Your task to perform on an android device: install app "Nova Launcher" Image 0: 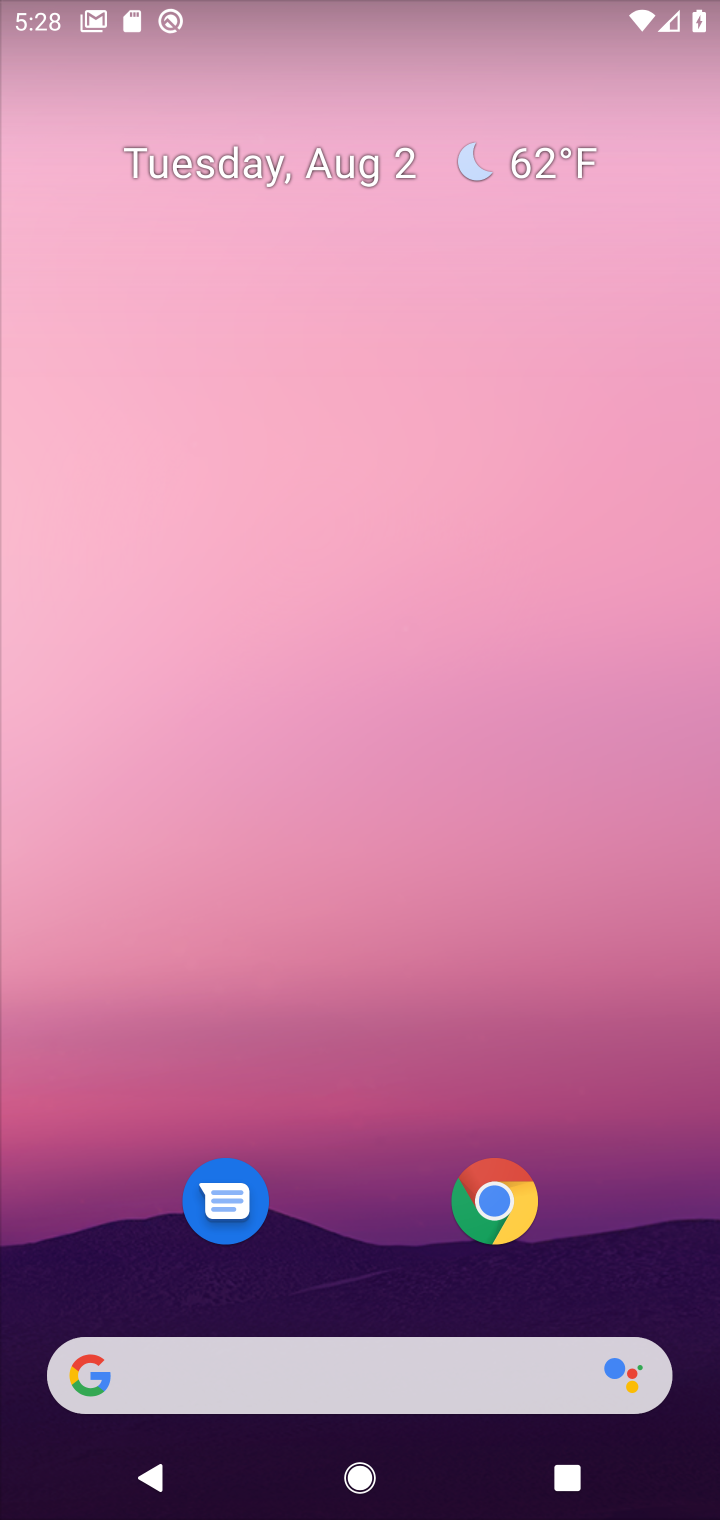
Step 0: drag from (429, 687) to (444, 364)
Your task to perform on an android device: install app "Nova Launcher" Image 1: 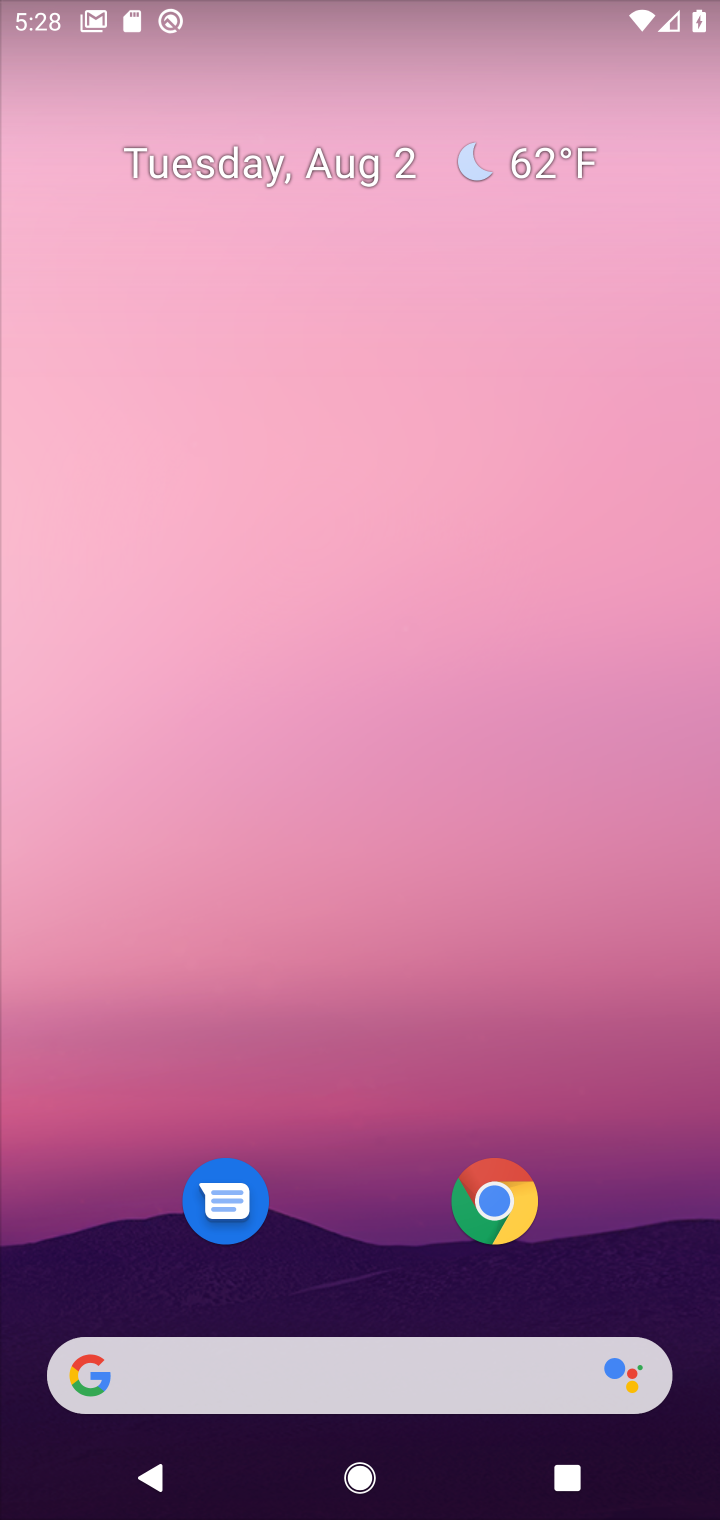
Step 1: drag from (421, 701) to (454, 320)
Your task to perform on an android device: install app "Nova Launcher" Image 2: 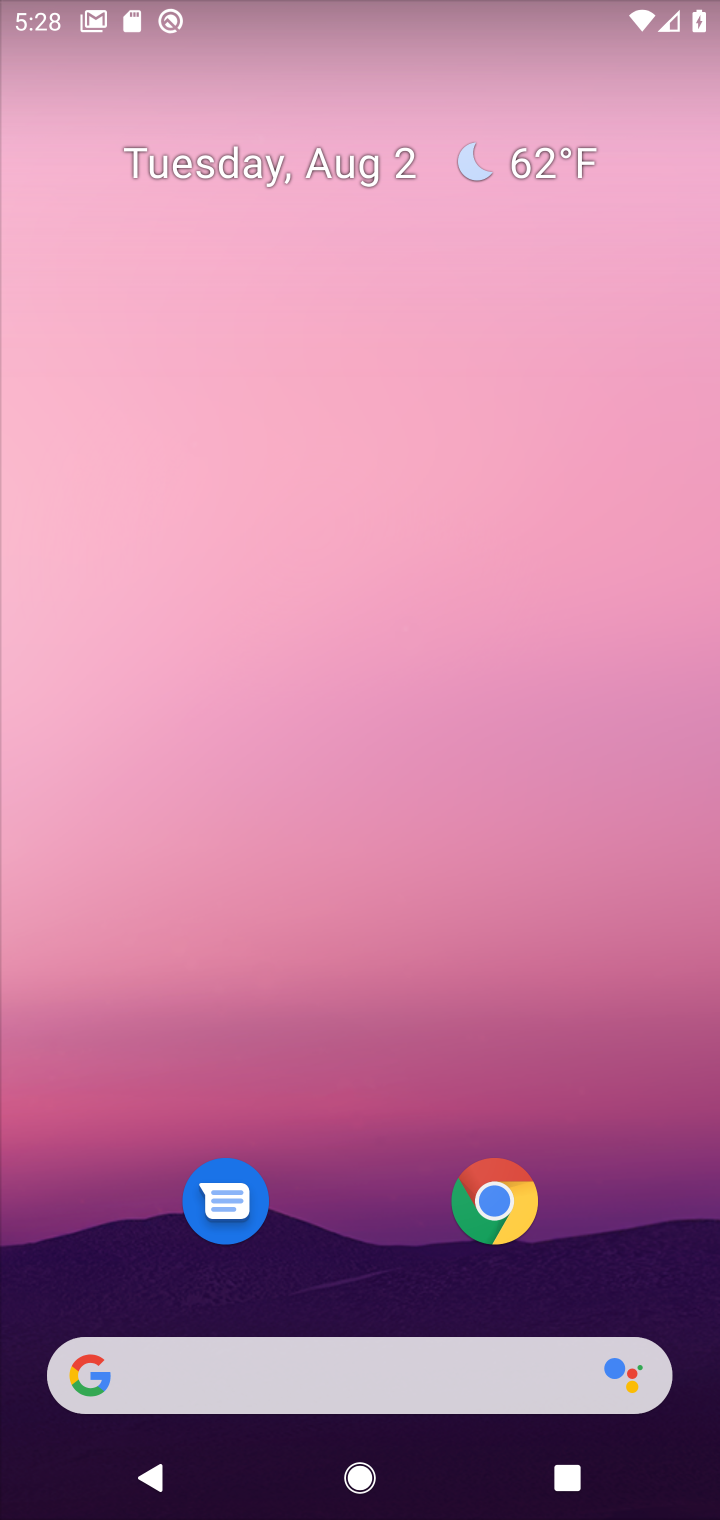
Step 2: drag from (466, 488) to (485, 0)
Your task to perform on an android device: install app "Nova Launcher" Image 3: 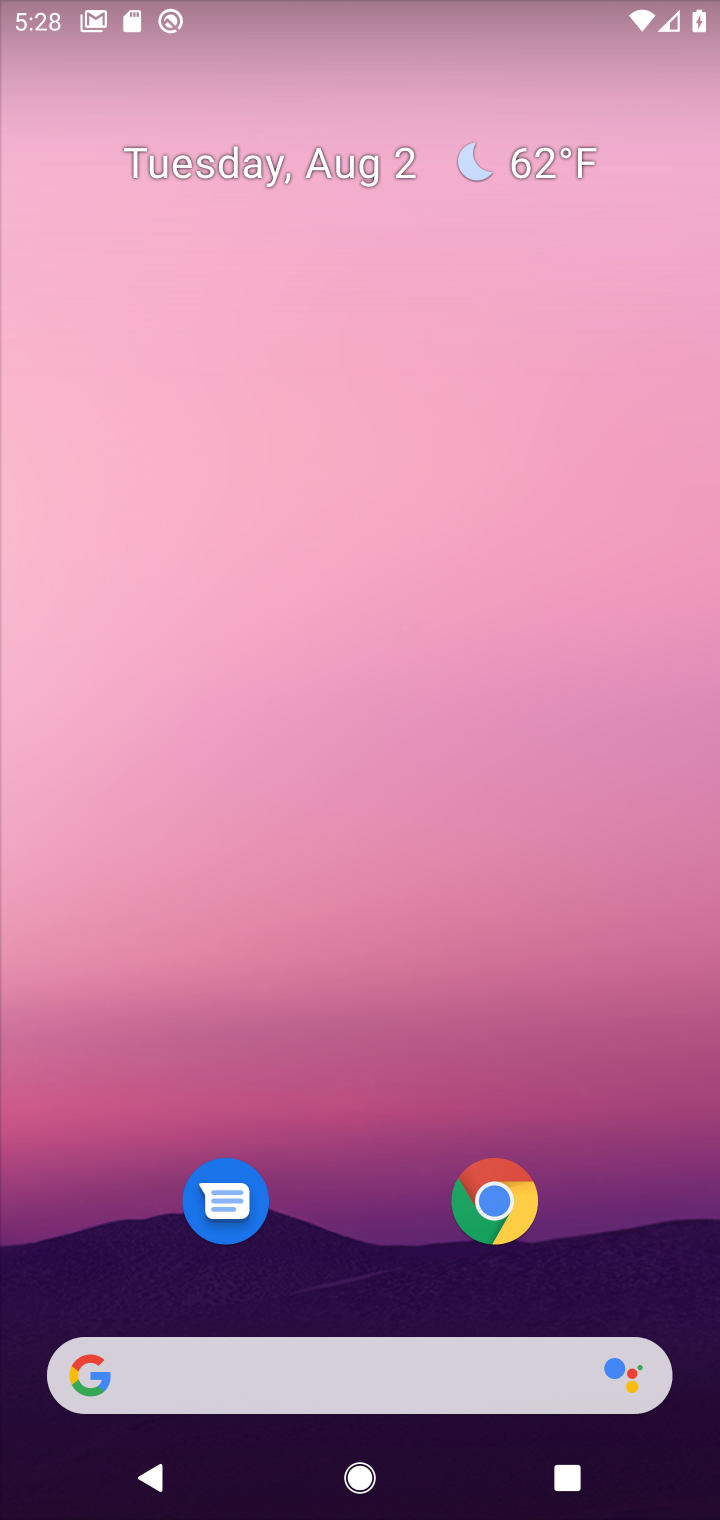
Step 3: drag from (348, 1245) to (365, 41)
Your task to perform on an android device: install app "Nova Launcher" Image 4: 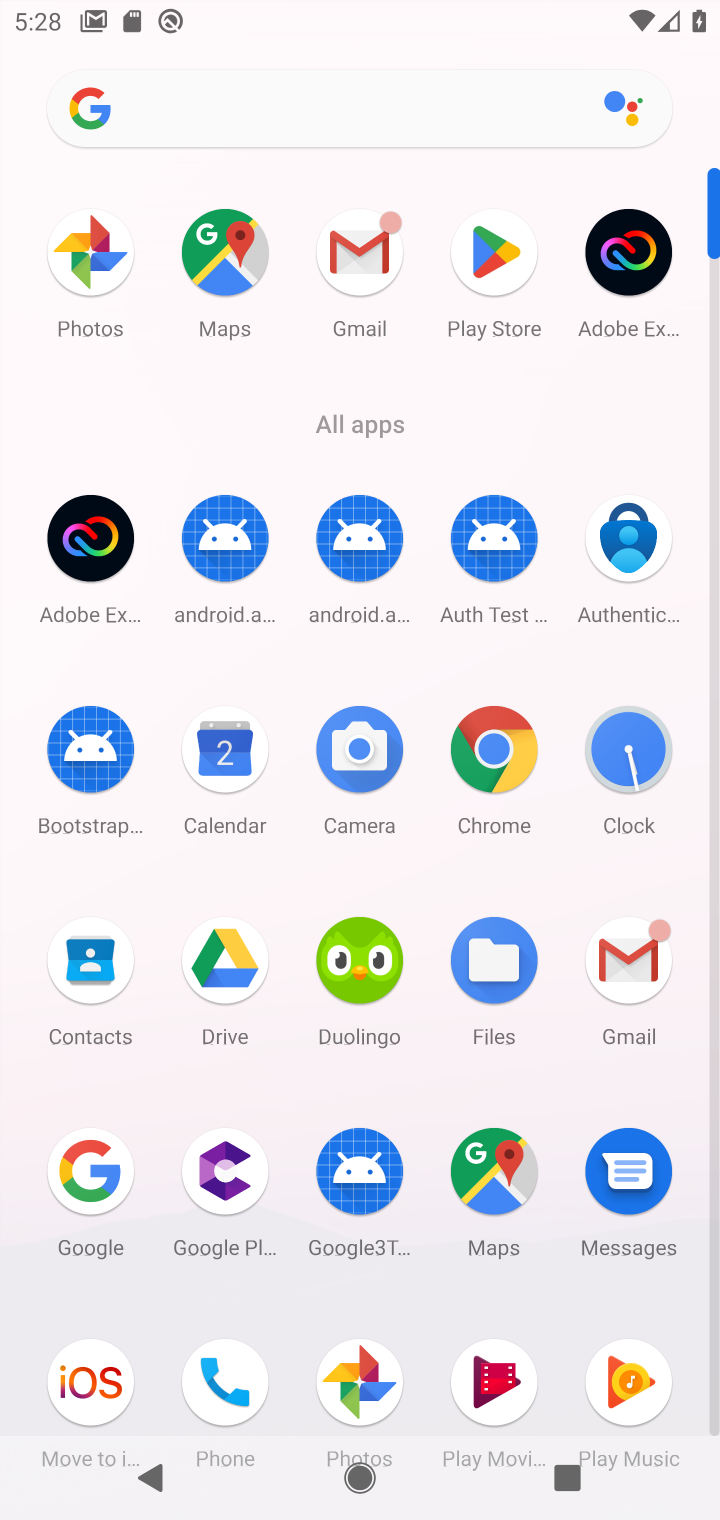
Step 4: click (482, 266)
Your task to perform on an android device: install app "Nova Launcher" Image 5: 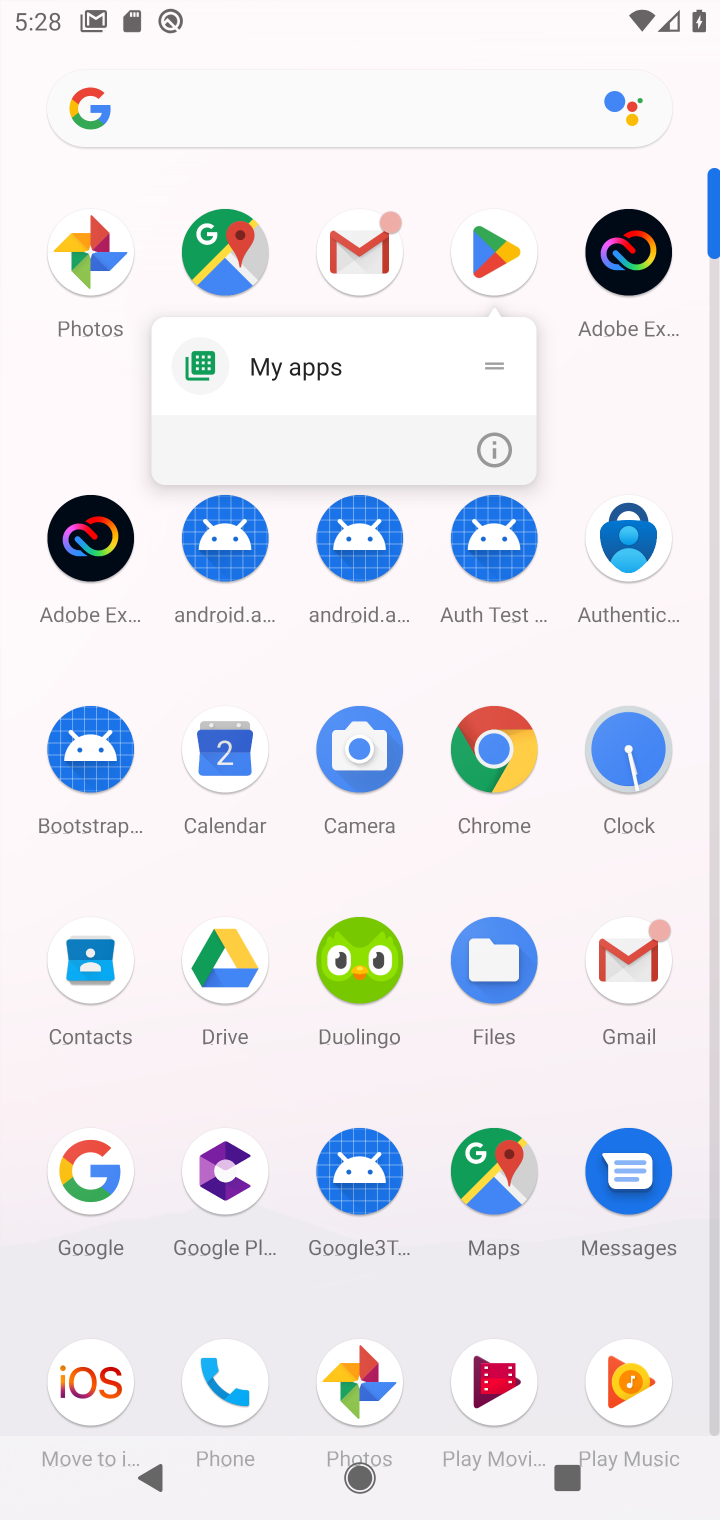
Step 5: click (503, 249)
Your task to perform on an android device: install app "Nova Launcher" Image 6: 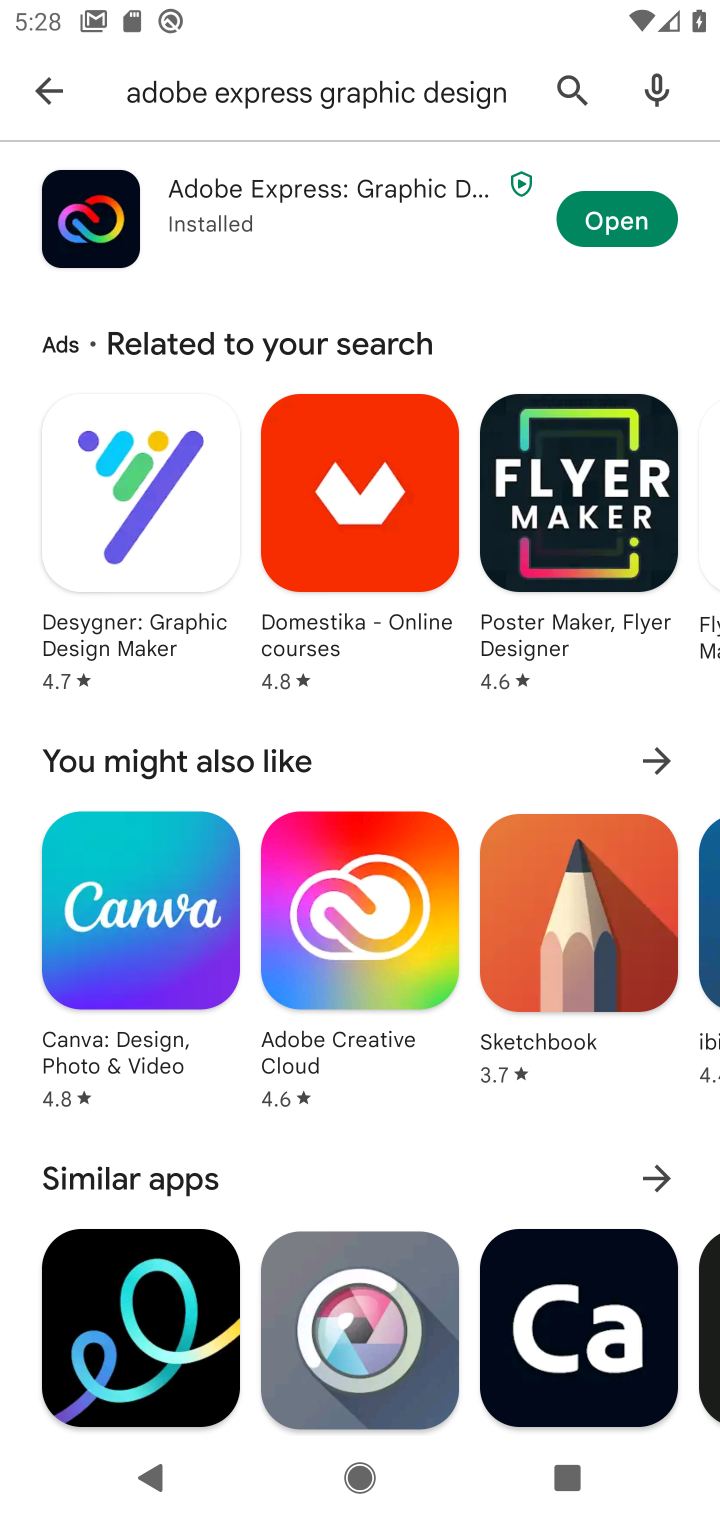
Step 6: click (578, 83)
Your task to perform on an android device: install app "Nova Launcher" Image 7: 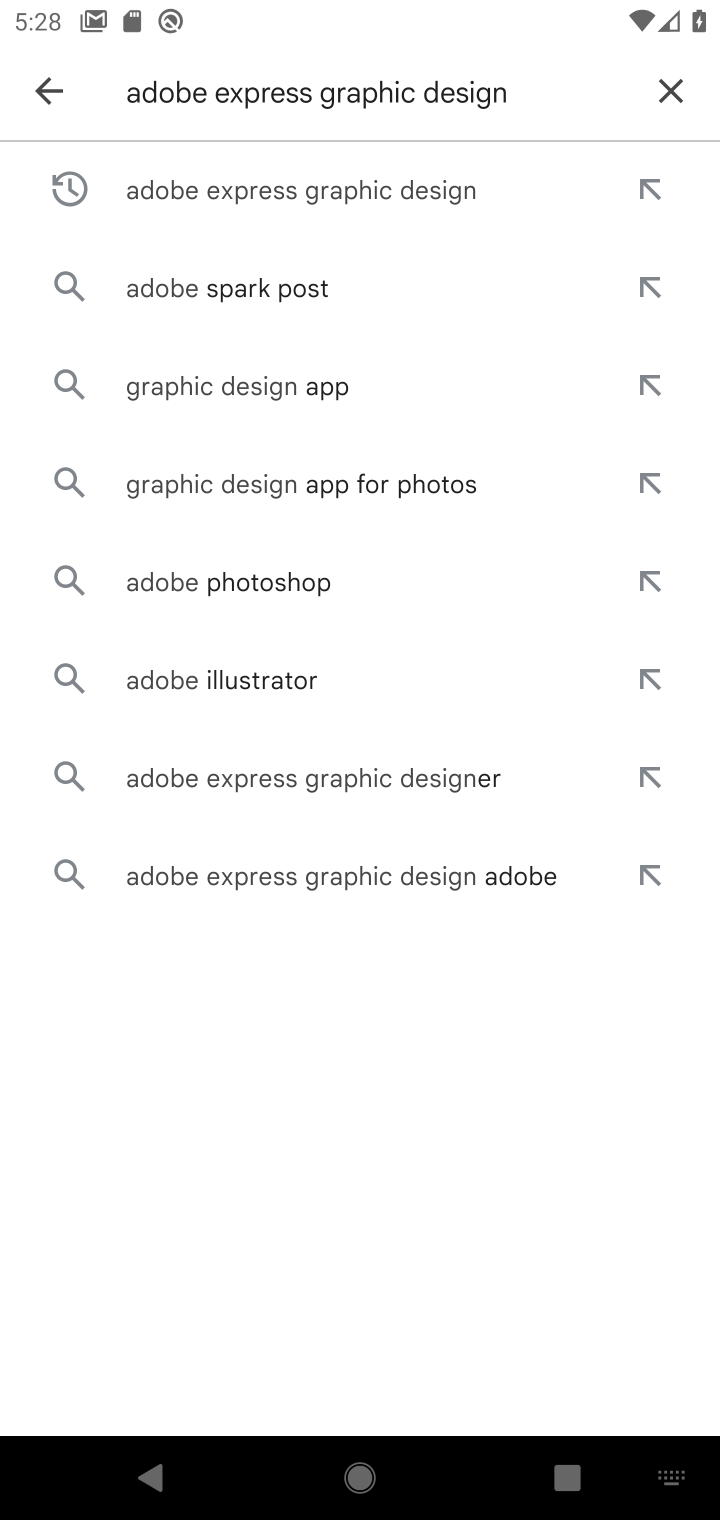
Step 7: click (684, 89)
Your task to perform on an android device: install app "Nova Launcher" Image 8: 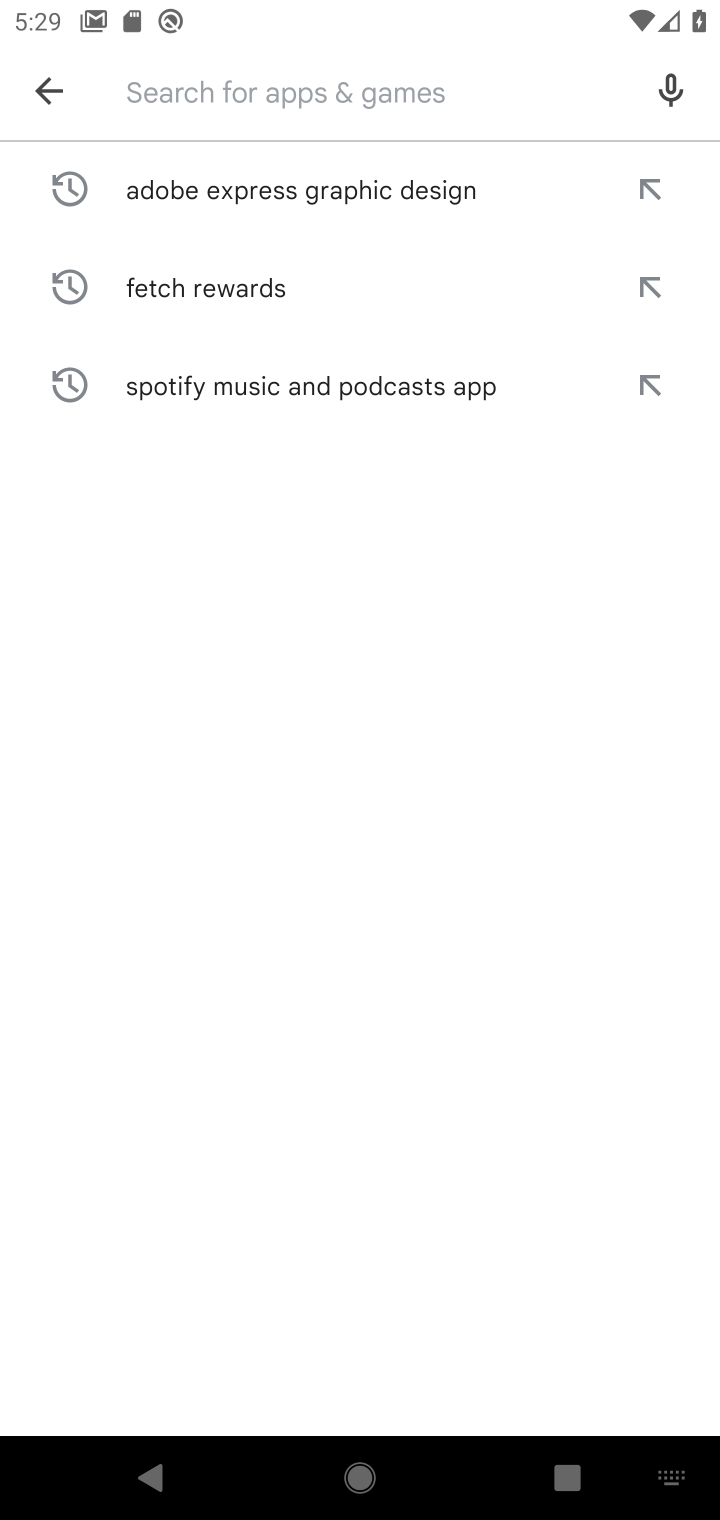
Step 8: type "Nova Launcher"
Your task to perform on an android device: install app "Nova Launcher" Image 9: 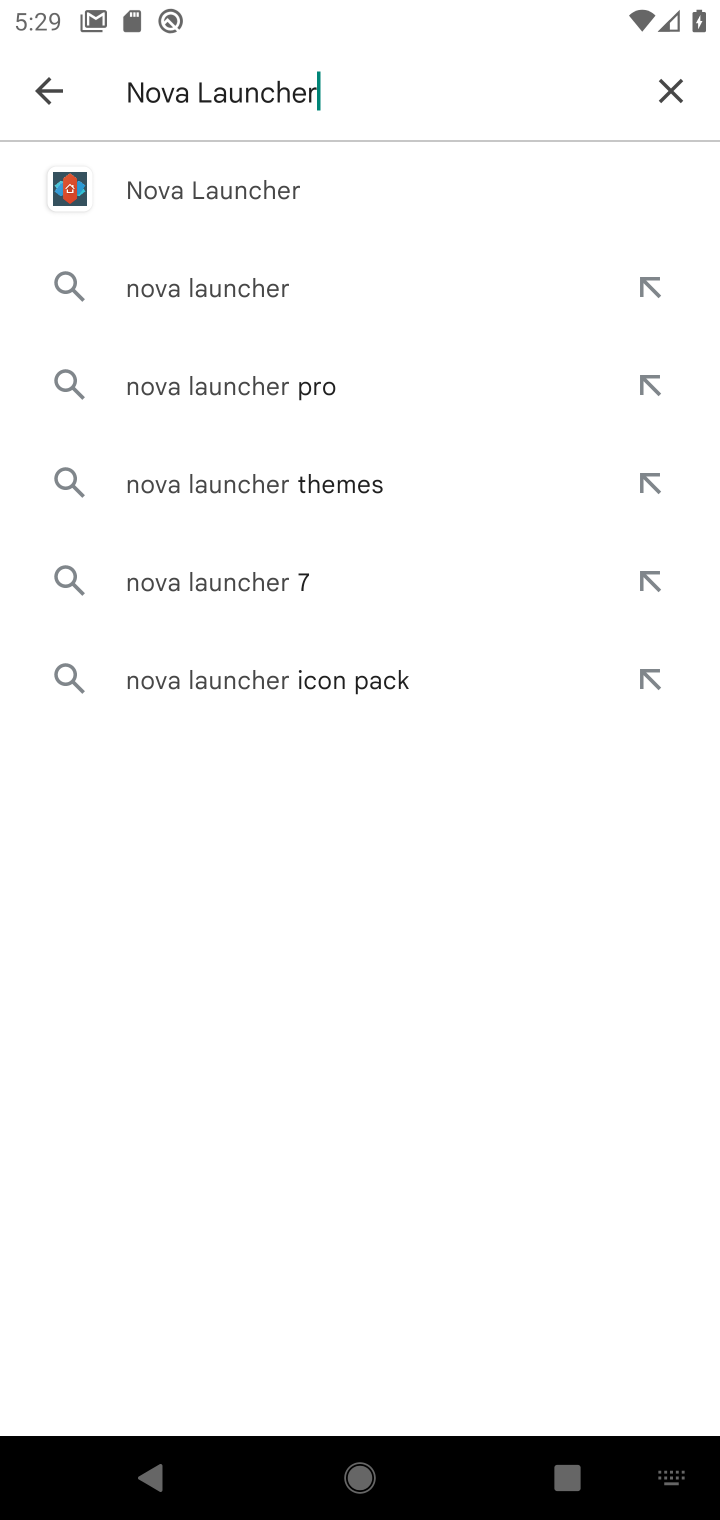
Step 9: click (282, 169)
Your task to perform on an android device: install app "Nova Launcher" Image 10: 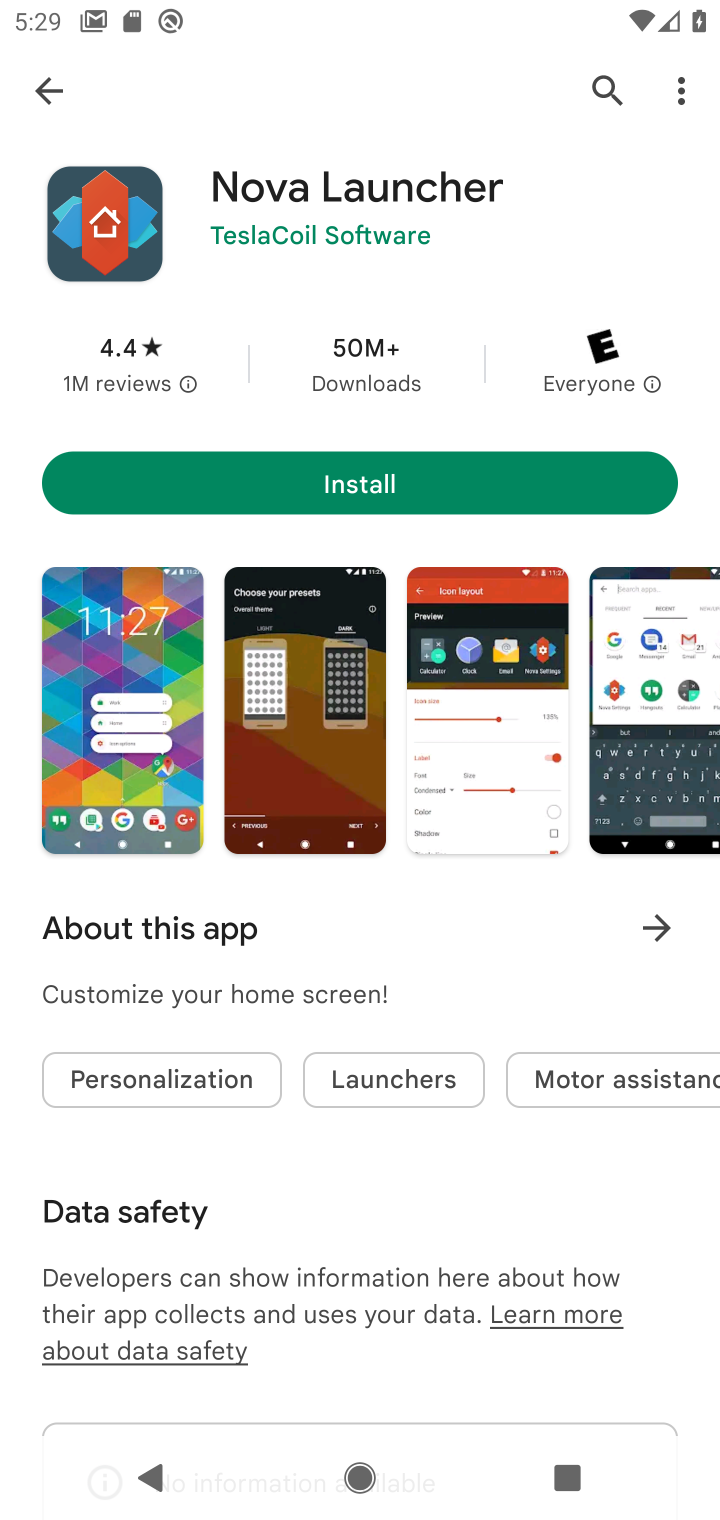
Step 10: click (440, 479)
Your task to perform on an android device: install app "Nova Launcher" Image 11: 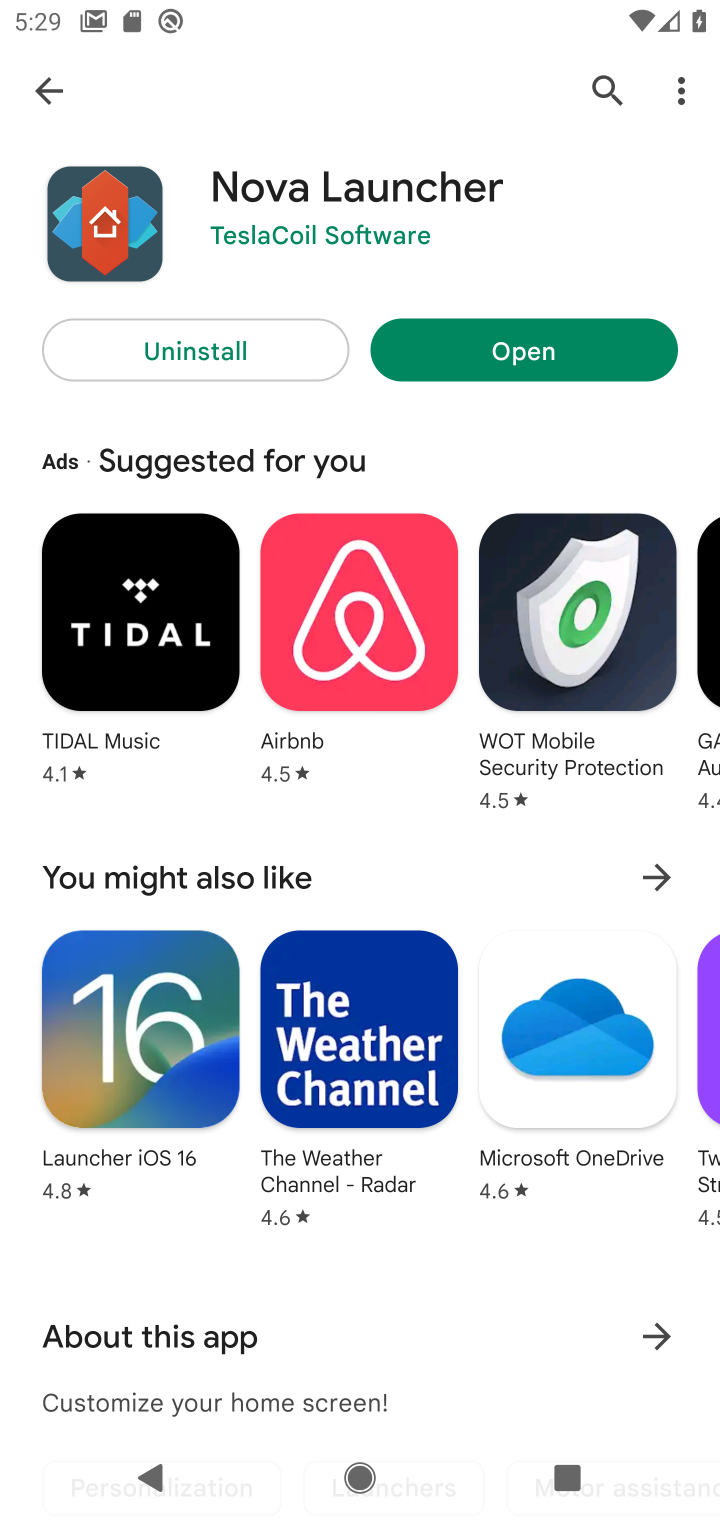
Step 11: task complete